Your task to perform on an android device: Show the shopping cart on ebay. Image 0: 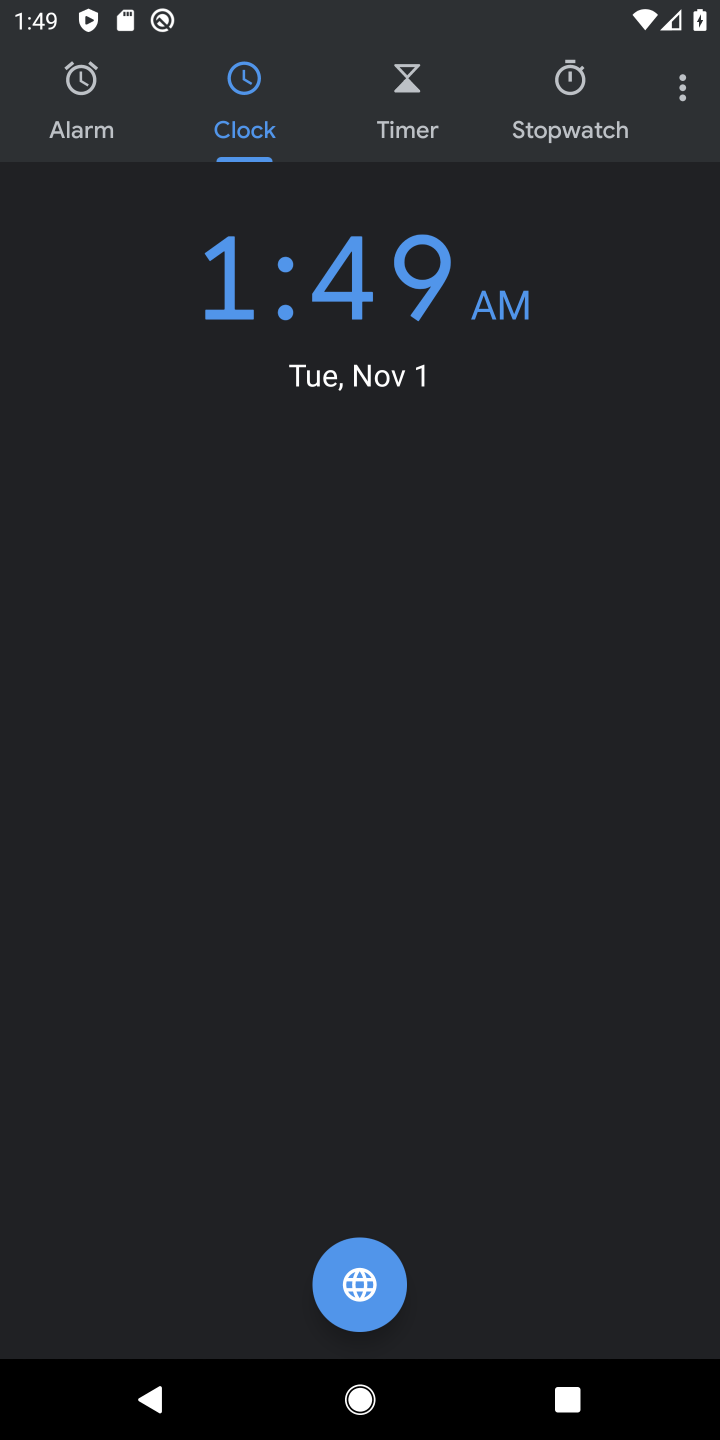
Step 0: press home button
Your task to perform on an android device: Show the shopping cart on ebay. Image 1: 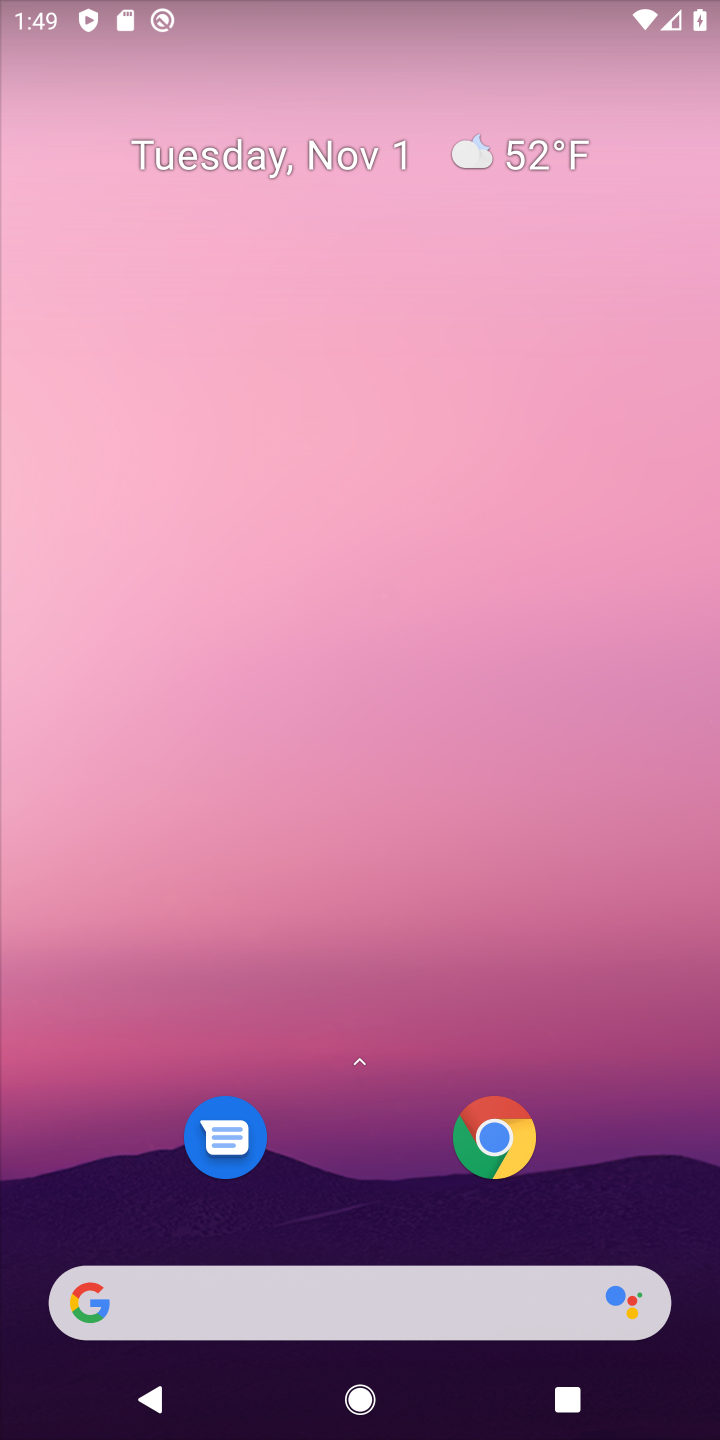
Step 1: click (418, 1292)
Your task to perform on an android device: Show the shopping cart on ebay. Image 2: 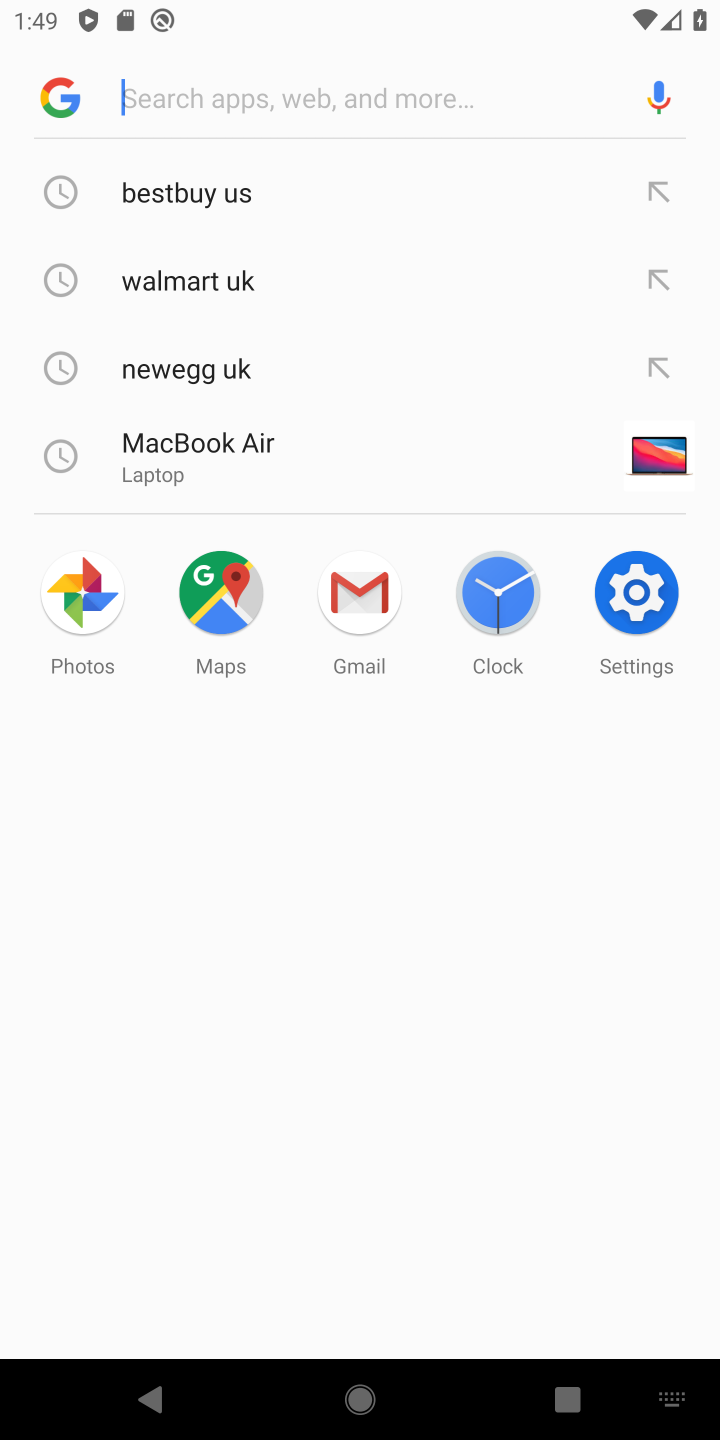
Step 2: type "ebay"
Your task to perform on an android device: Show the shopping cart on ebay. Image 3: 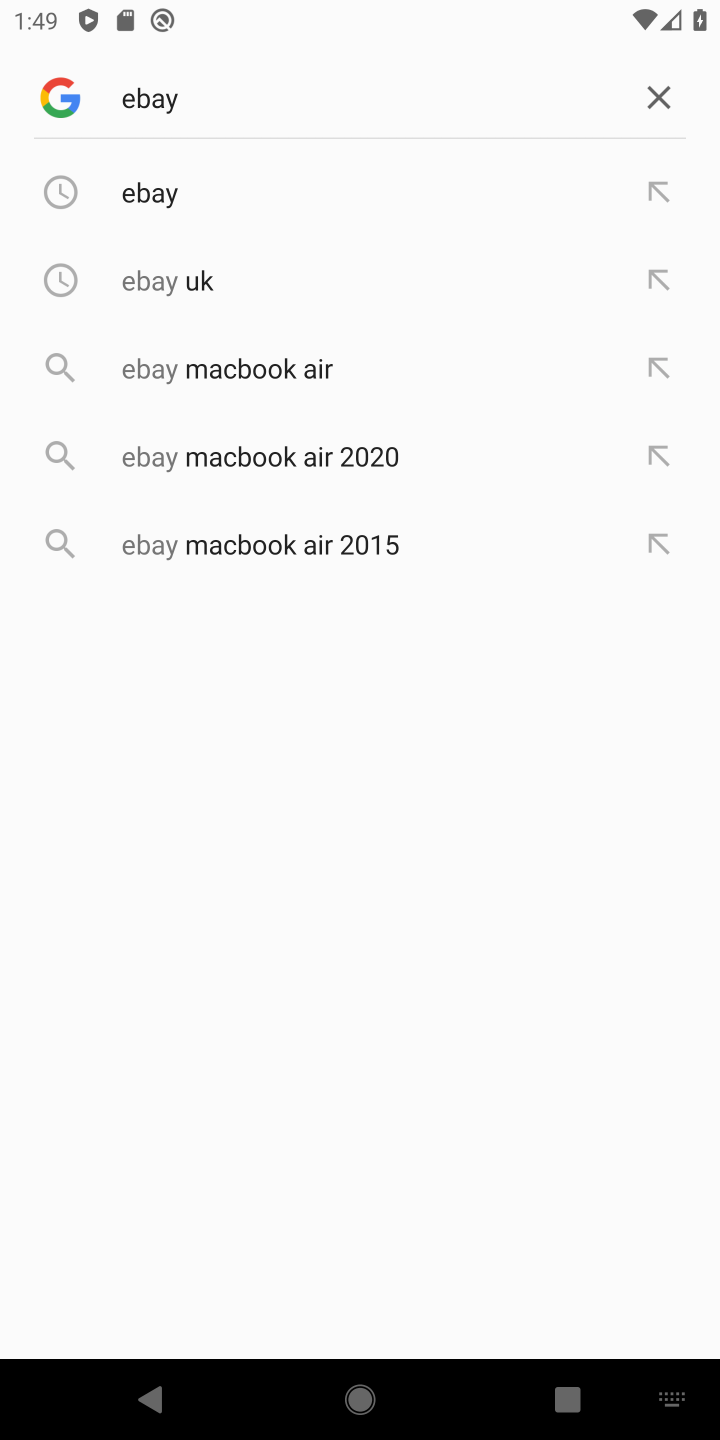
Step 3: click (356, 210)
Your task to perform on an android device: Show the shopping cart on ebay. Image 4: 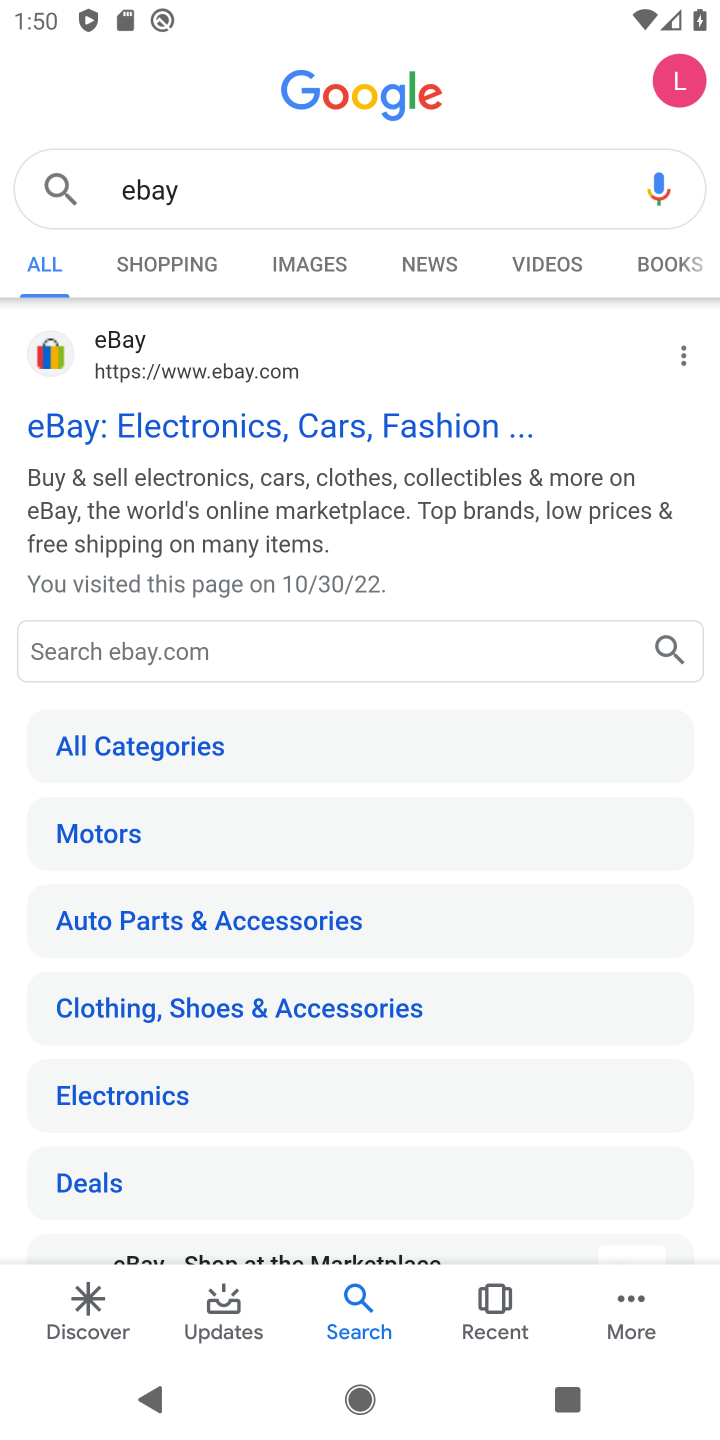
Step 4: click (152, 433)
Your task to perform on an android device: Show the shopping cart on ebay. Image 5: 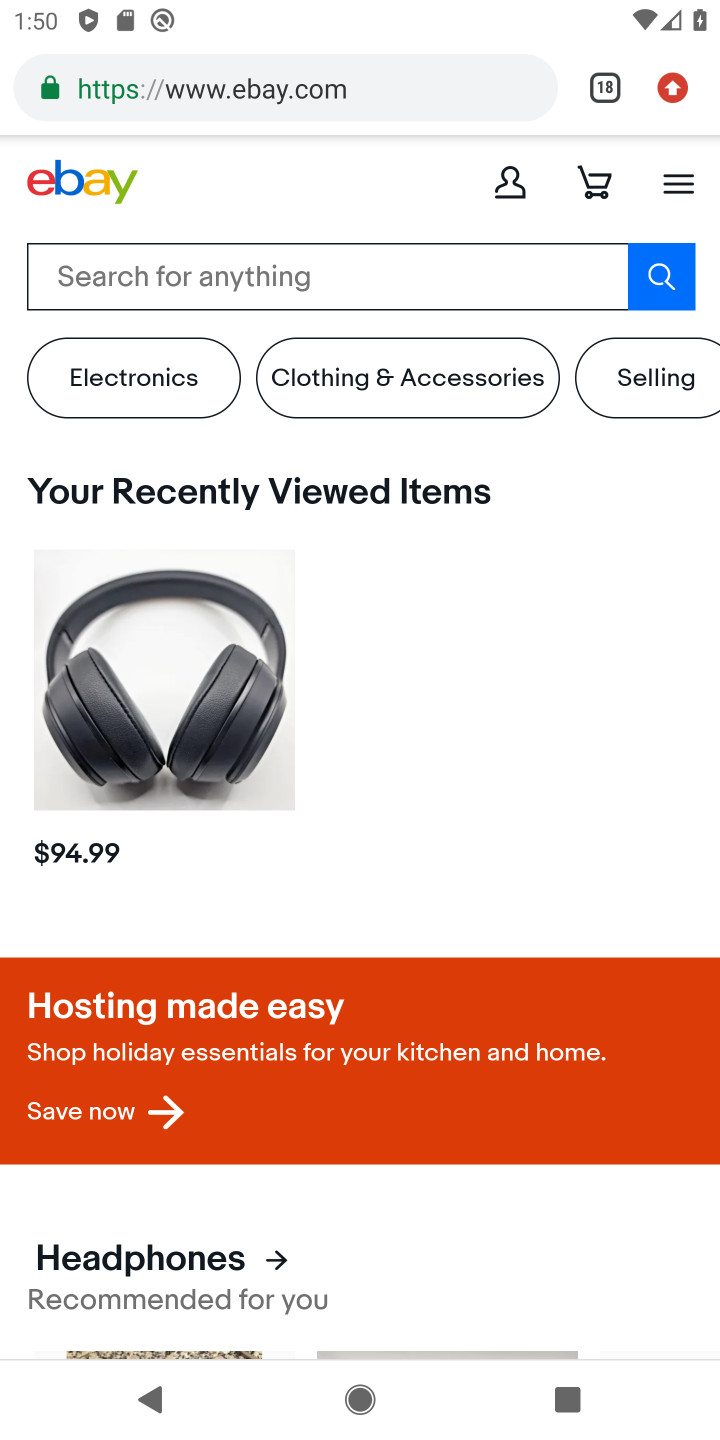
Step 5: click (285, 290)
Your task to perform on an android device: Show the shopping cart on ebay. Image 6: 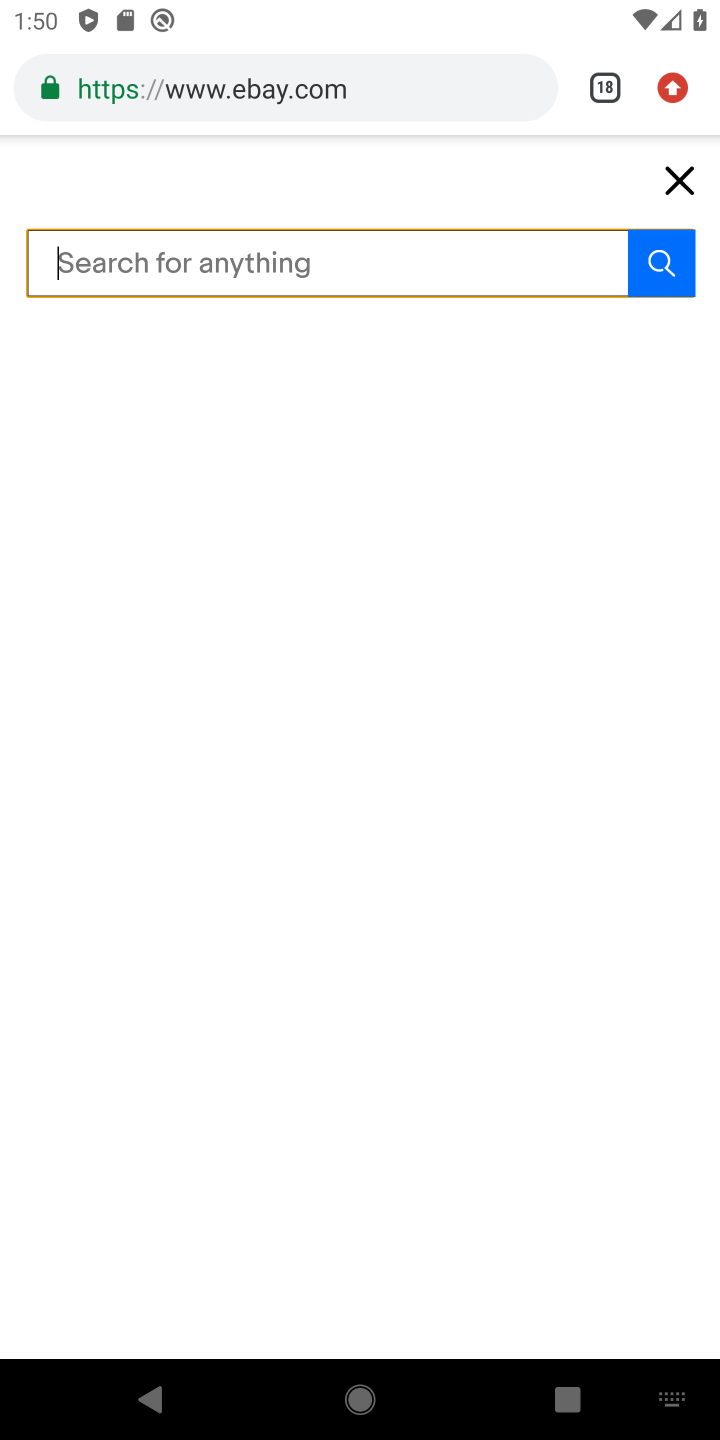
Step 6: type "s"
Your task to perform on an android device: Show the shopping cart on ebay. Image 7: 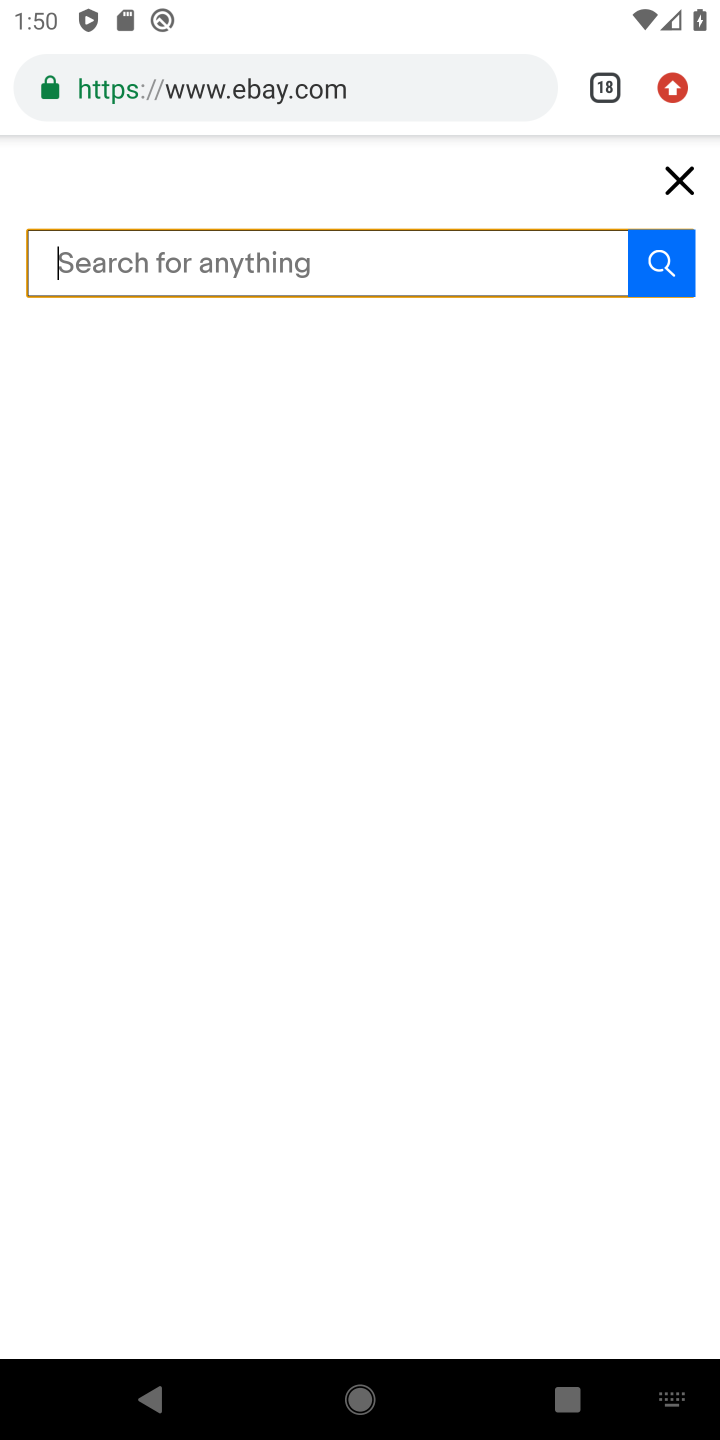
Step 7: click (672, 187)
Your task to perform on an android device: Show the shopping cart on ebay. Image 8: 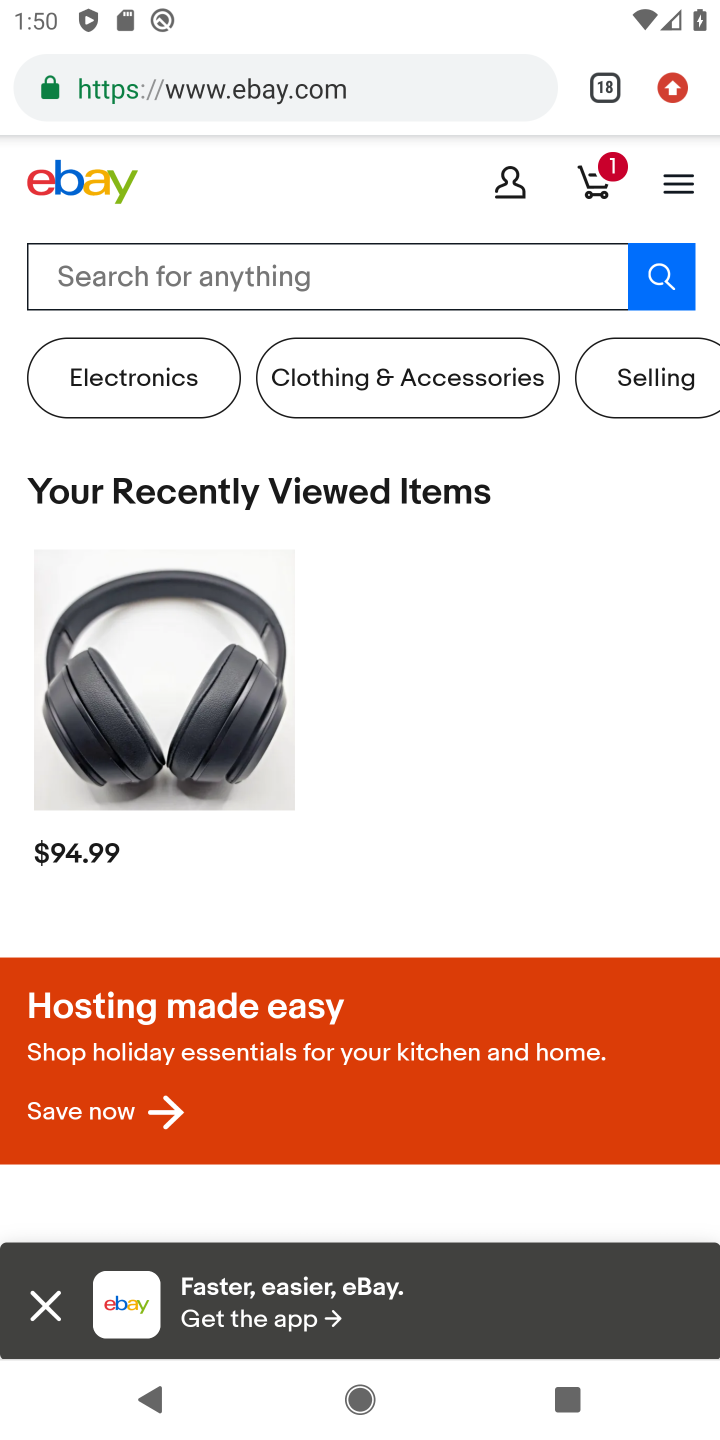
Step 8: click (575, 169)
Your task to perform on an android device: Show the shopping cart on ebay. Image 9: 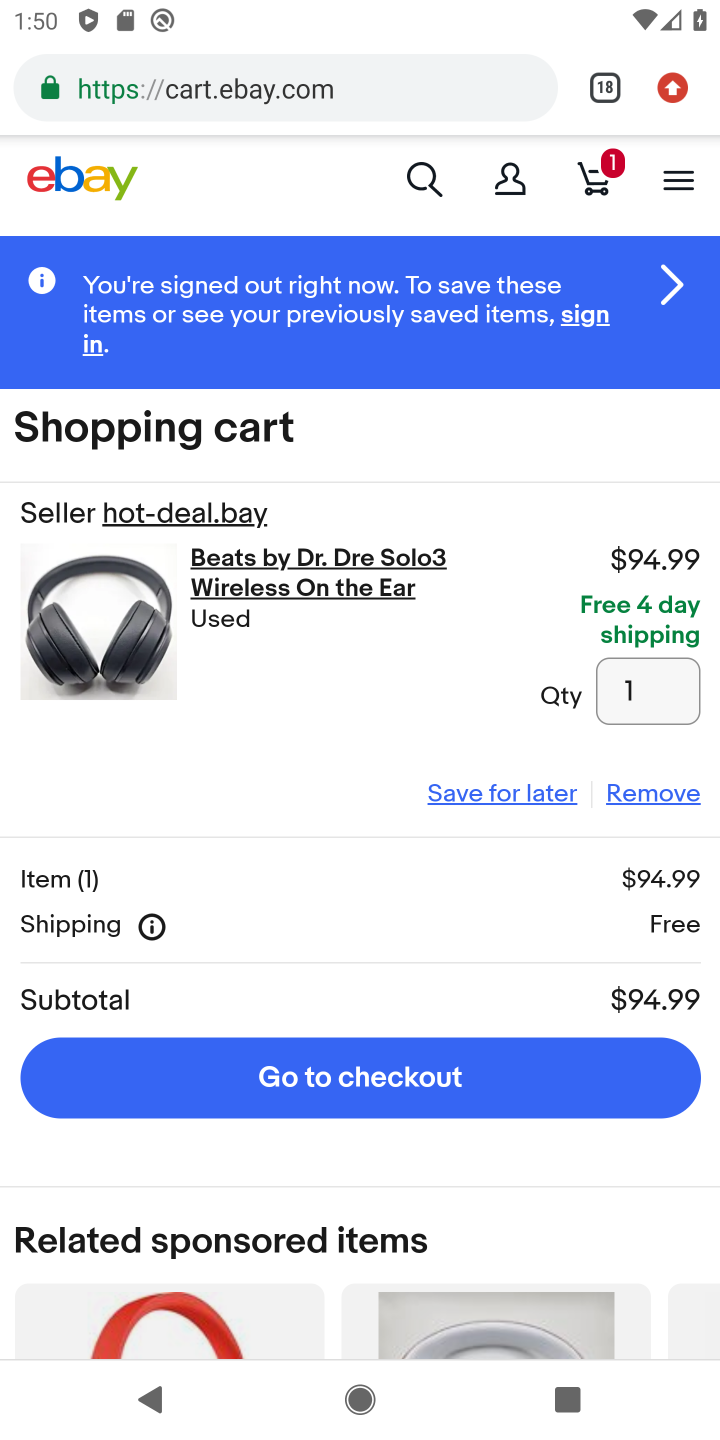
Step 9: task complete